Your task to perform on an android device: choose inbox layout in the gmail app Image 0: 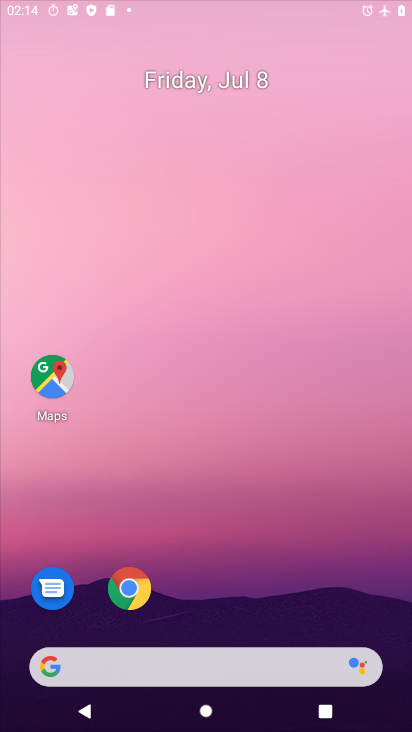
Step 0: drag from (247, 605) to (368, 0)
Your task to perform on an android device: choose inbox layout in the gmail app Image 1: 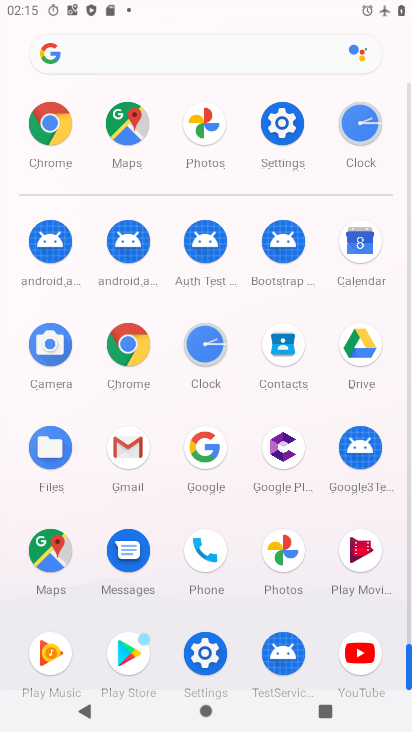
Step 1: click (130, 462)
Your task to perform on an android device: choose inbox layout in the gmail app Image 2: 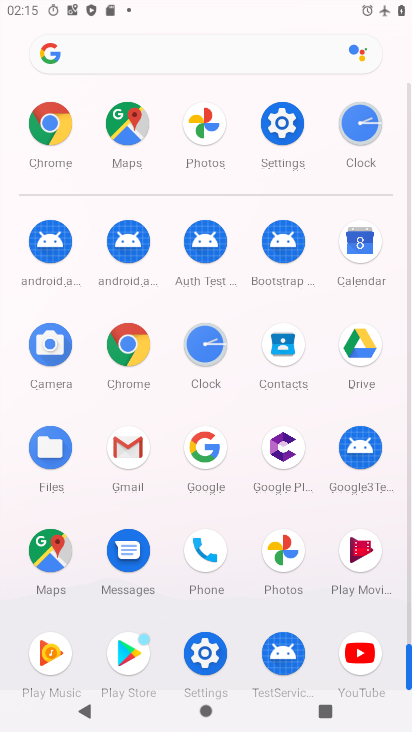
Step 2: click (130, 462)
Your task to perform on an android device: choose inbox layout in the gmail app Image 3: 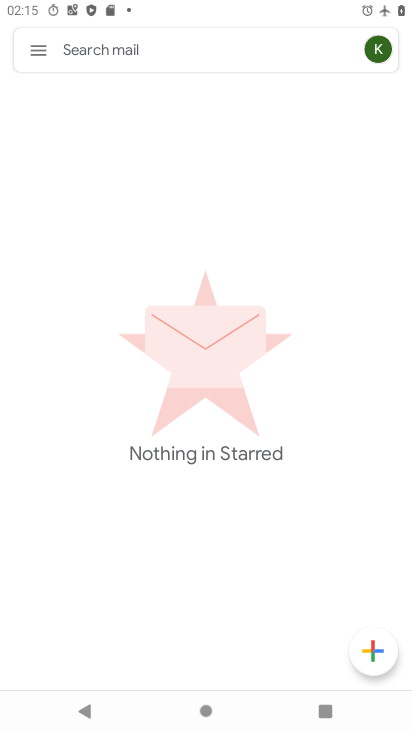
Step 3: click (29, 47)
Your task to perform on an android device: choose inbox layout in the gmail app Image 4: 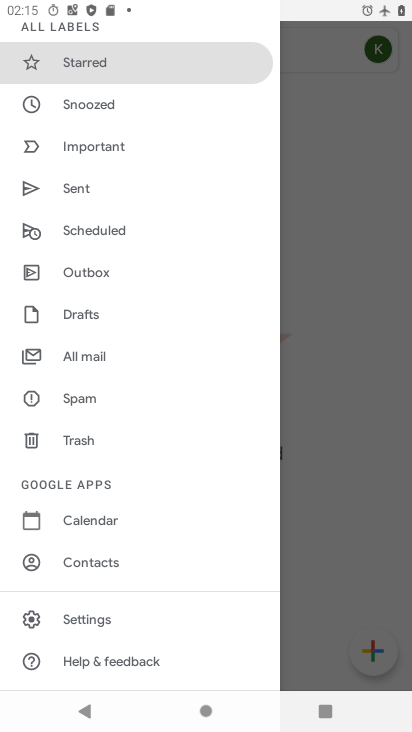
Step 4: drag from (79, 63) to (111, 570)
Your task to perform on an android device: choose inbox layout in the gmail app Image 5: 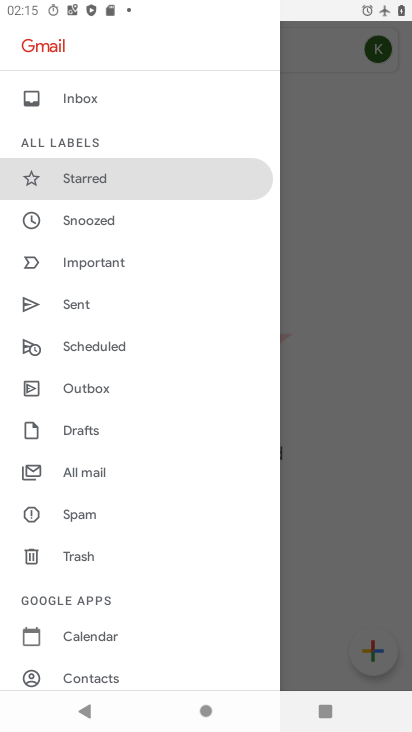
Step 5: click (107, 91)
Your task to perform on an android device: choose inbox layout in the gmail app Image 6: 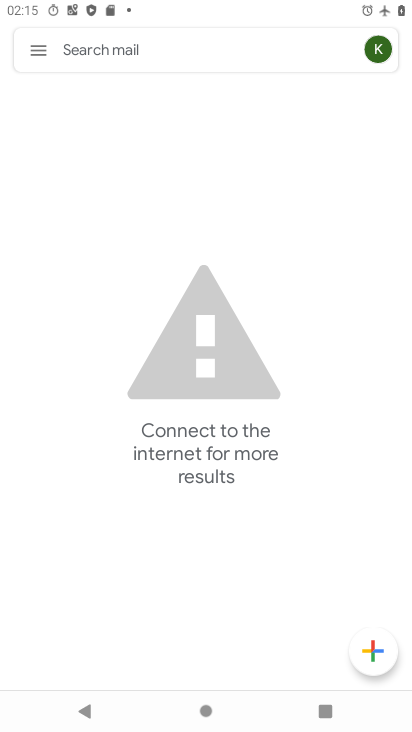
Step 6: drag from (130, 424) to (217, 138)
Your task to perform on an android device: choose inbox layout in the gmail app Image 7: 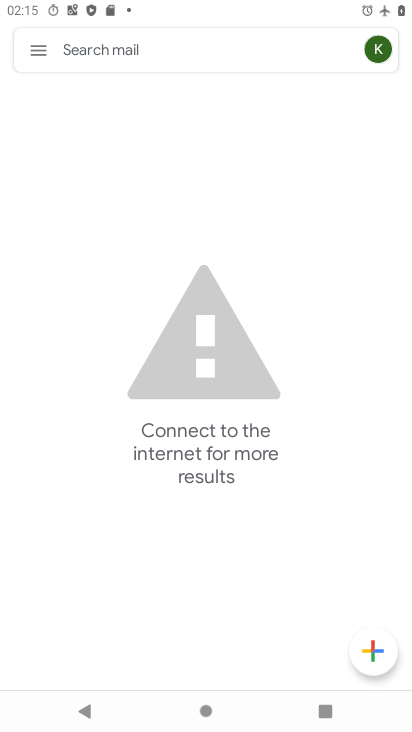
Step 7: drag from (122, 416) to (164, 140)
Your task to perform on an android device: choose inbox layout in the gmail app Image 8: 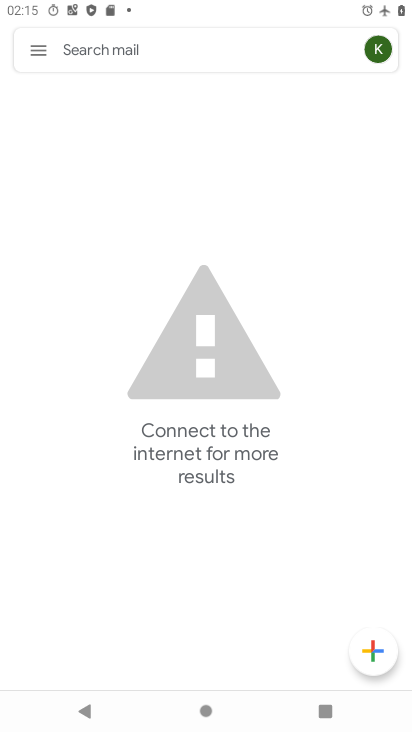
Step 8: drag from (283, 436) to (284, 402)
Your task to perform on an android device: choose inbox layout in the gmail app Image 9: 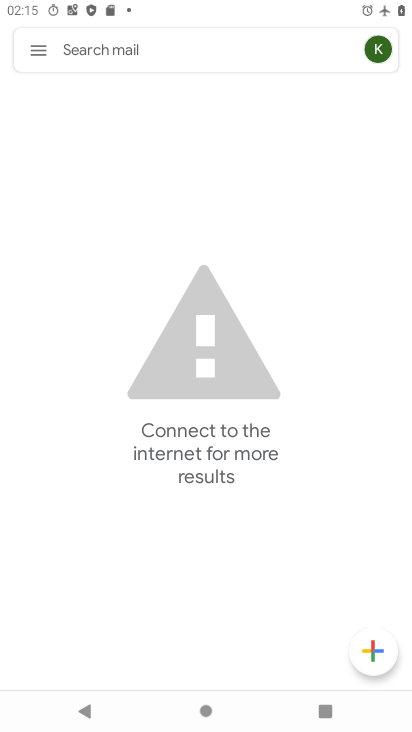
Step 9: click (273, 385)
Your task to perform on an android device: choose inbox layout in the gmail app Image 10: 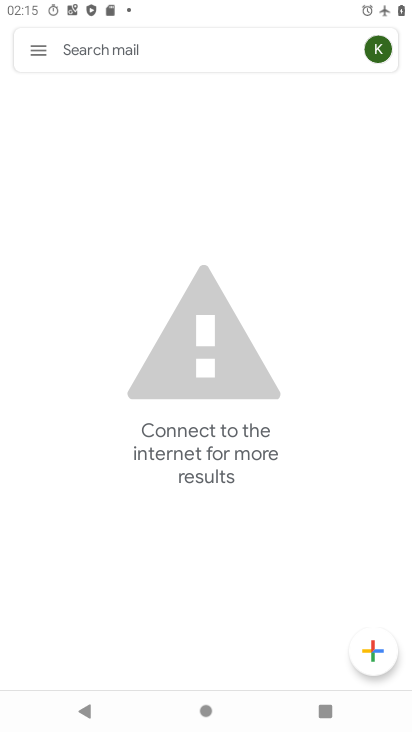
Step 10: click (273, 385)
Your task to perform on an android device: choose inbox layout in the gmail app Image 11: 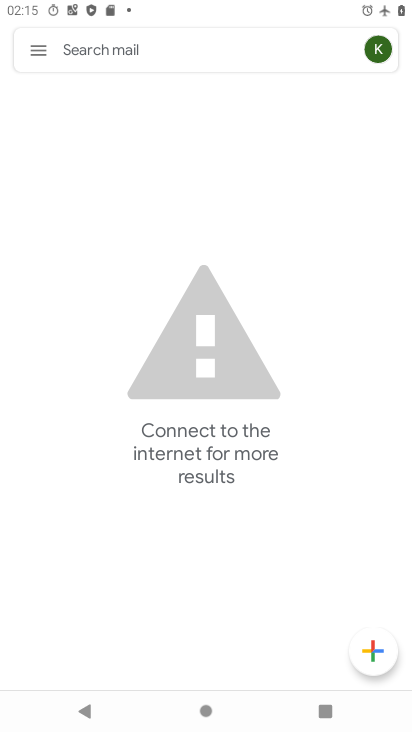
Step 11: click (213, 319)
Your task to perform on an android device: choose inbox layout in the gmail app Image 12: 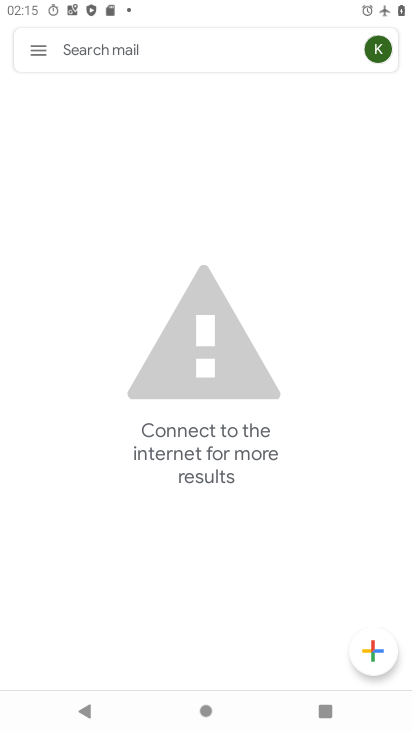
Step 12: click (206, 319)
Your task to perform on an android device: choose inbox layout in the gmail app Image 13: 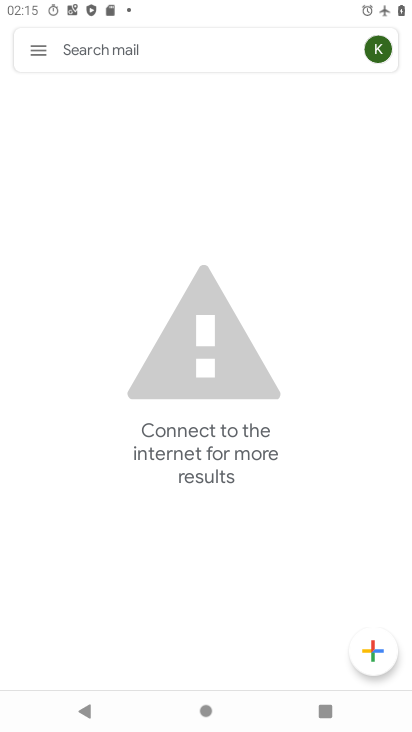
Step 13: click (206, 319)
Your task to perform on an android device: choose inbox layout in the gmail app Image 14: 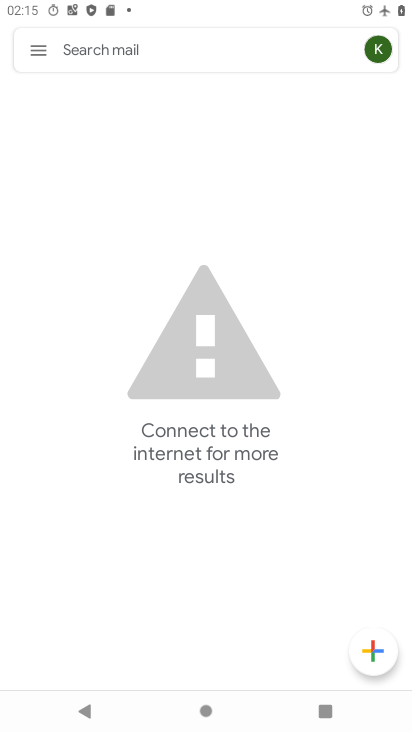
Step 14: click (315, 341)
Your task to perform on an android device: choose inbox layout in the gmail app Image 15: 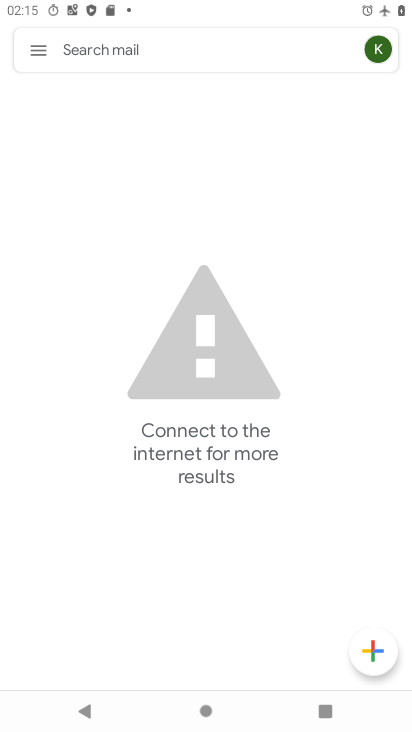
Step 15: click (308, 339)
Your task to perform on an android device: choose inbox layout in the gmail app Image 16: 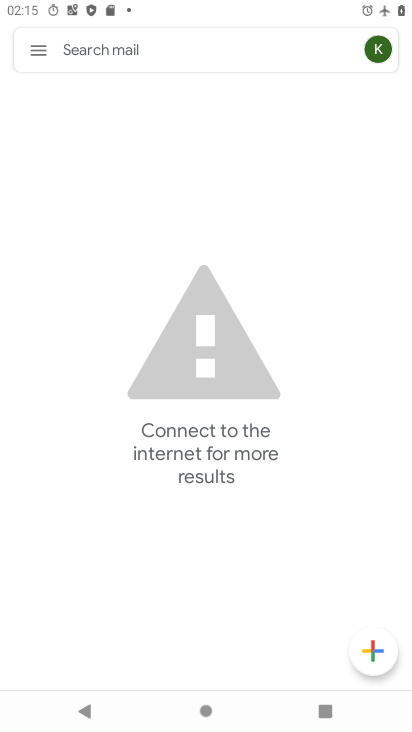
Step 16: task complete